Your task to perform on an android device: remove spam from my inbox in the gmail app Image 0: 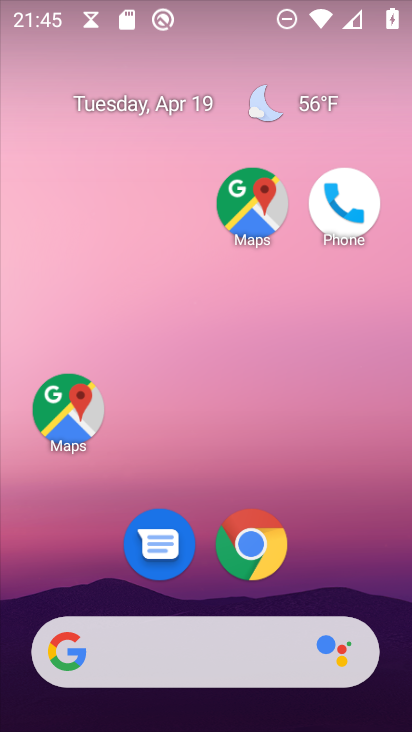
Step 0: drag from (128, 652) to (301, 135)
Your task to perform on an android device: remove spam from my inbox in the gmail app Image 1: 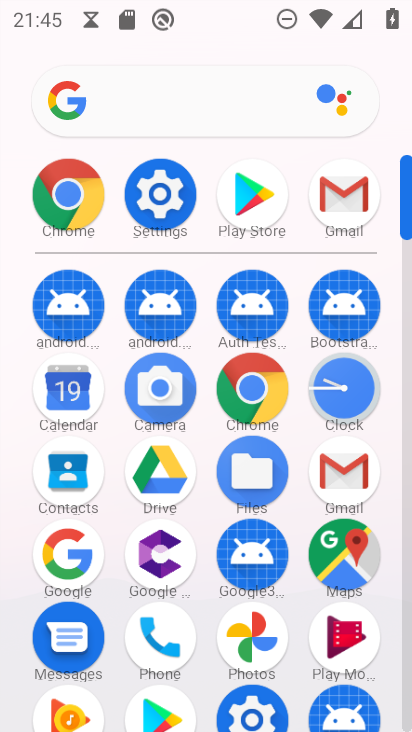
Step 1: click (344, 205)
Your task to perform on an android device: remove spam from my inbox in the gmail app Image 2: 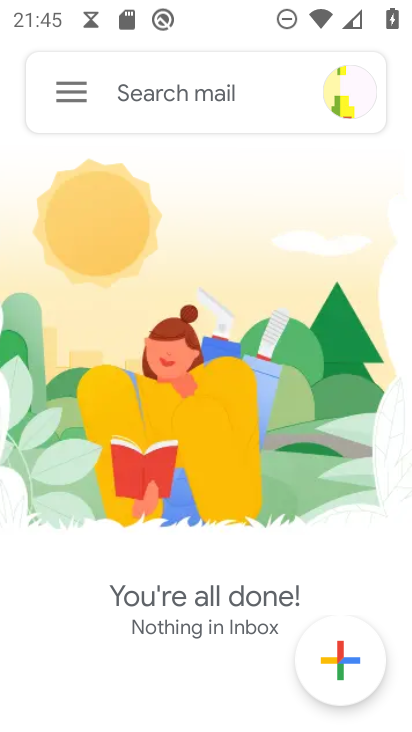
Step 2: click (70, 92)
Your task to perform on an android device: remove spam from my inbox in the gmail app Image 3: 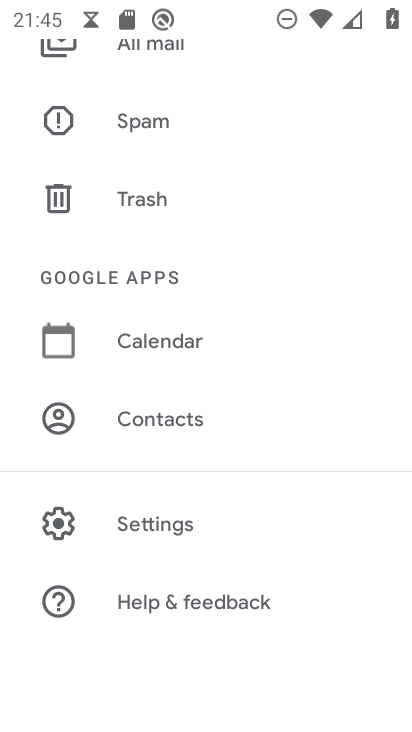
Step 3: click (148, 124)
Your task to perform on an android device: remove spam from my inbox in the gmail app Image 4: 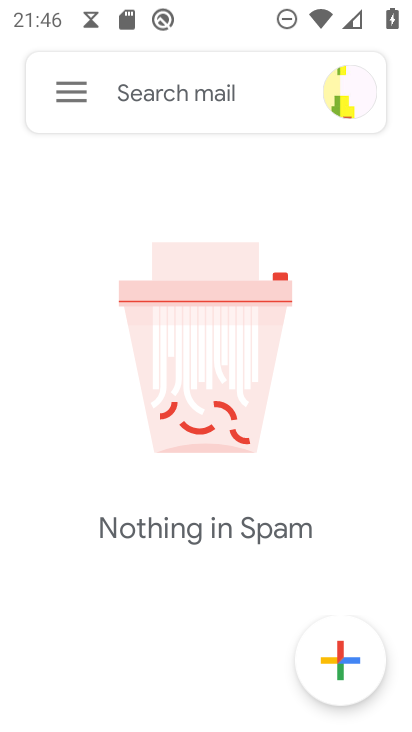
Step 4: task complete